Your task to perform on an android device: create a new album in the google photos Image 0: 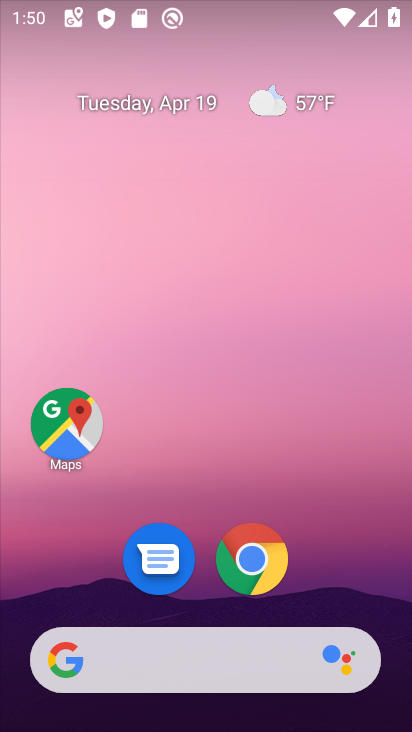
Step 0: drag from (209, 589) to (249, 85)
Your task to perform on an android device: create a new album in the google photos Image 1: 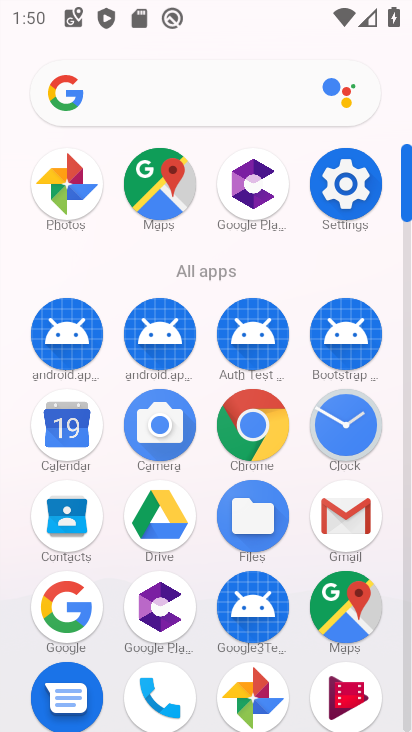
Step 1: click (250, 686)
Your task to perform on an android device: create a new album in the google photos Image 2: 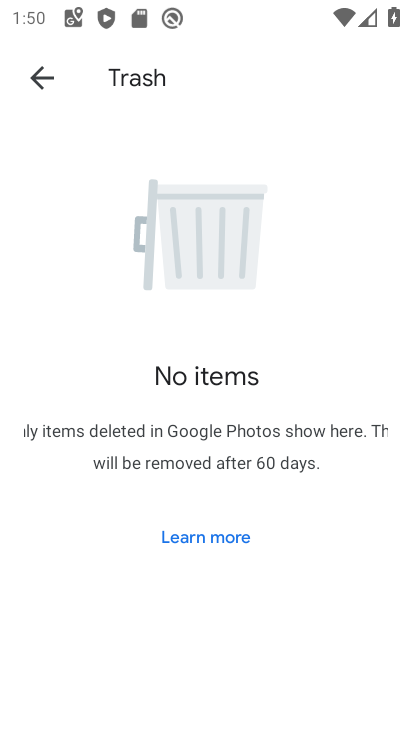
Step 2: click (46, 77)
Your task to perform on an android device: create a new album in the google photos Image 3: 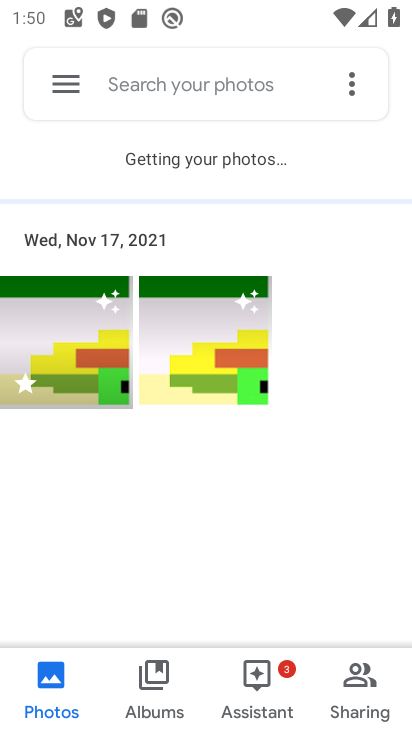
Step 3: click (150, 672)
Your task to perform on an android device: create a new album in the google photos Image 4: 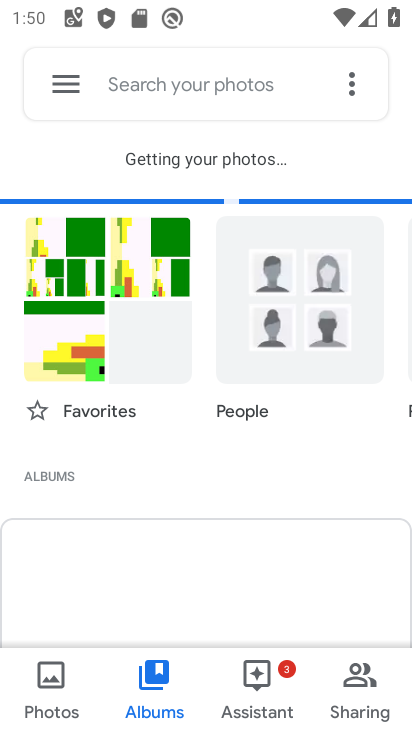
Step 4: click (347, 86)
Your task to perform on an android device: create a new album in the google photos Image 5: 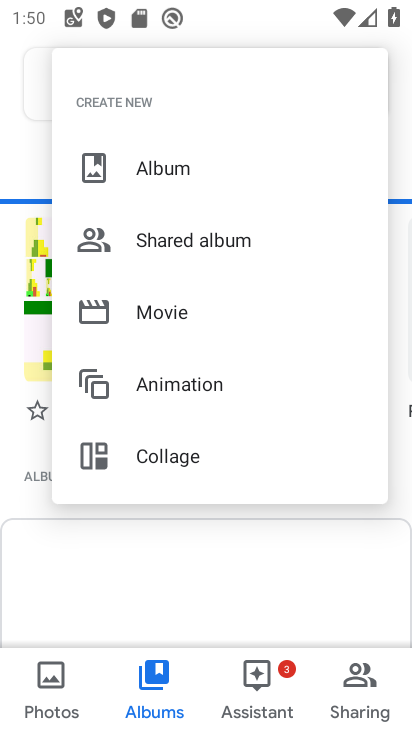
Step 5: click (151, 162)
Your task to perform on an android device: create a new album in the google photos Image 6: 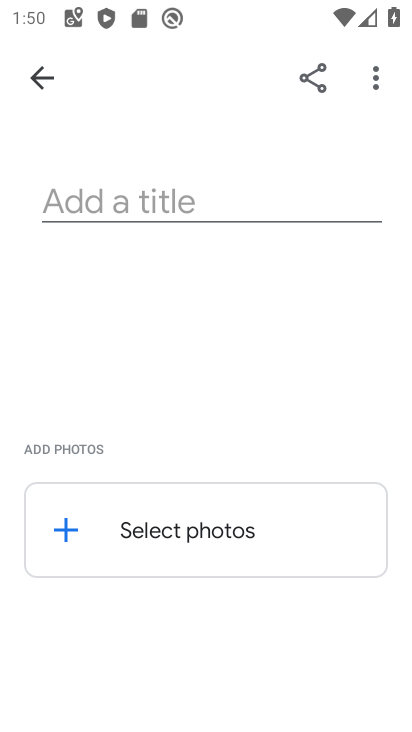
Step 6: click (73, 537)
Your task to perform on an android device: create a new album in the google photos Image 7: 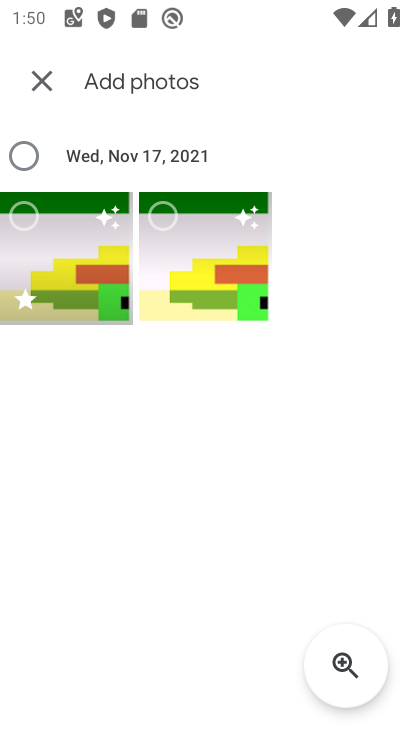
Step 7: click (28, 154)
Your task to perform on an android device: create a new album in the google photos Image 8: 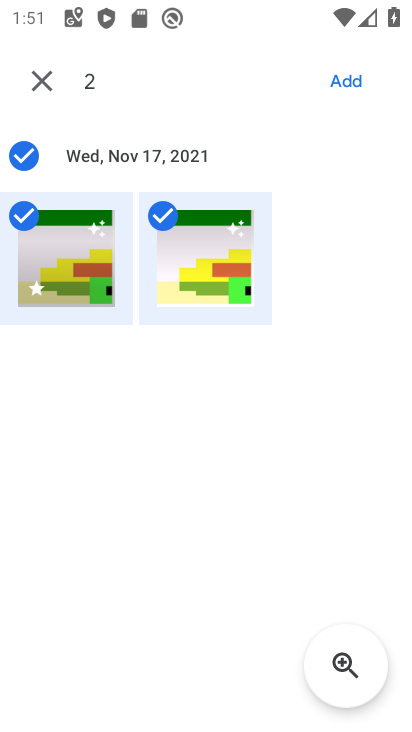
Step 8: click (338, 86)
Your task to perform on an android device: create a new album in the google photos Image 9: 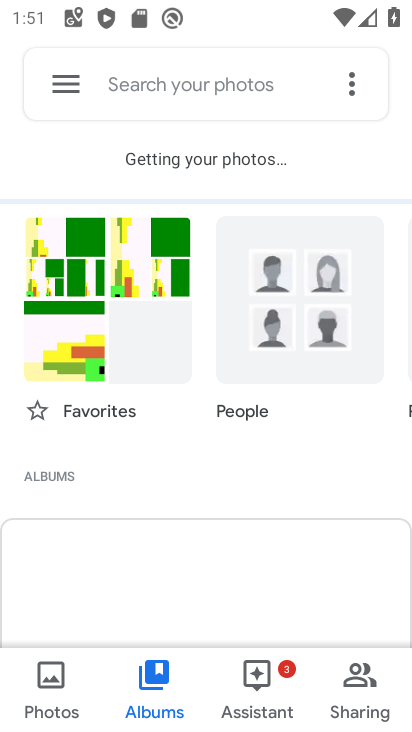
Step 9: click (354, 78)
Your task to perform on an android device: create a new album in the google photos Image 10: 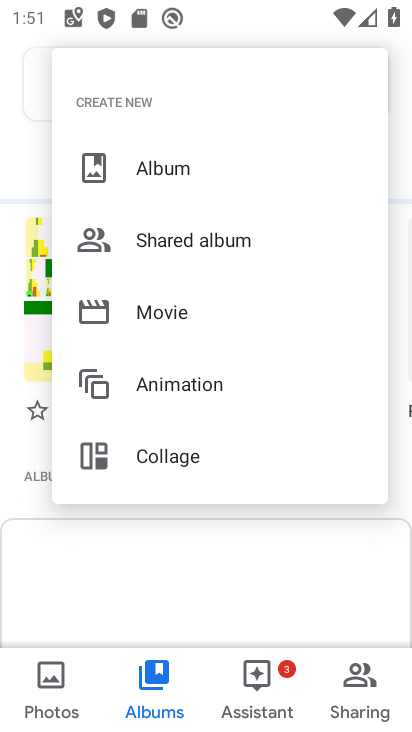
Step 10: click (162, 160)
Your task to perform on an android device: create a new album in the google photos Image 11: 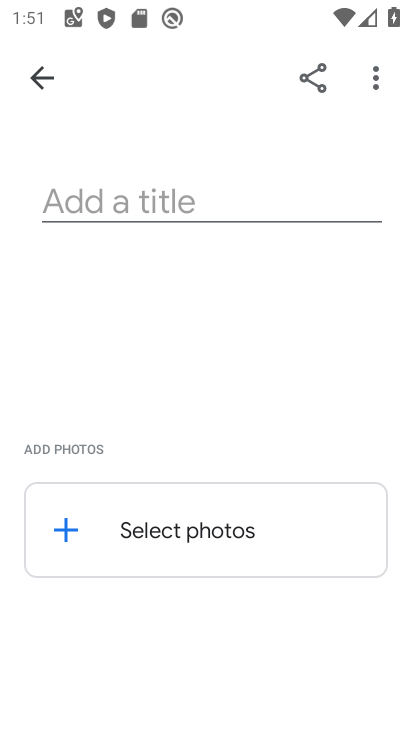
Step 11: click (80, 541)
Your task to perform on an android device: create a new album in the google photos Image 12: 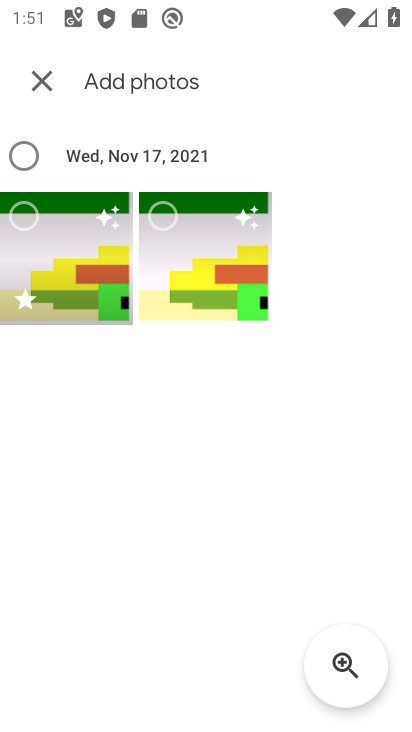
Step 12: click (18, 151)
Your task to perform on an android device: create a new album in the google photos Image 13: 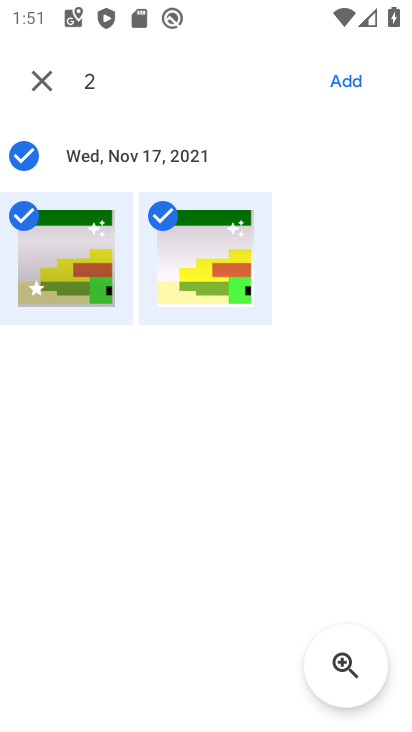
Step 13: click (342, 78)
Your task to perform on an android device: create a new album in the google photos Image 14: 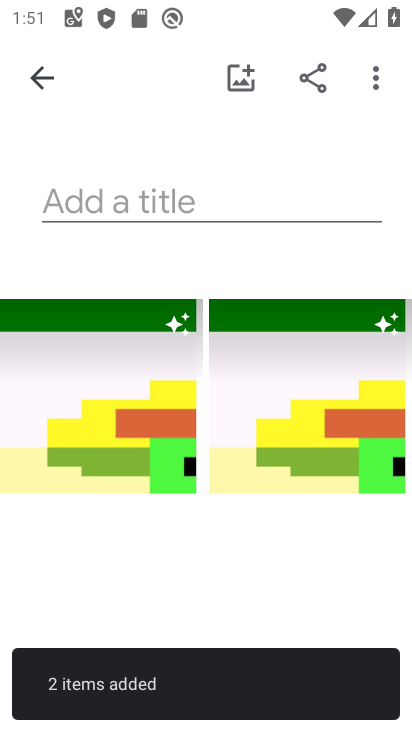
Step 14: click (108, 193)
Your task to perform on an android device: create a new album in the google photos Image 15: 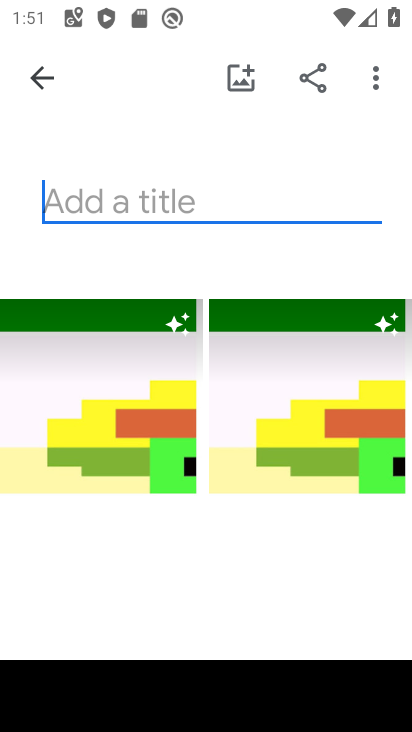
Step 15: type "vcgfs"
Your task to perform on an android device: create a new album in the google photos Image 16: 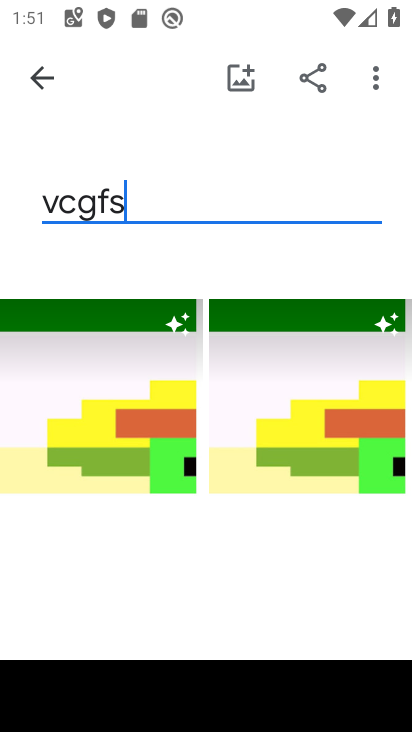
Step 16: click (236, 572)
Your task to perform on an android device: create a new album in the google photos Image 17: 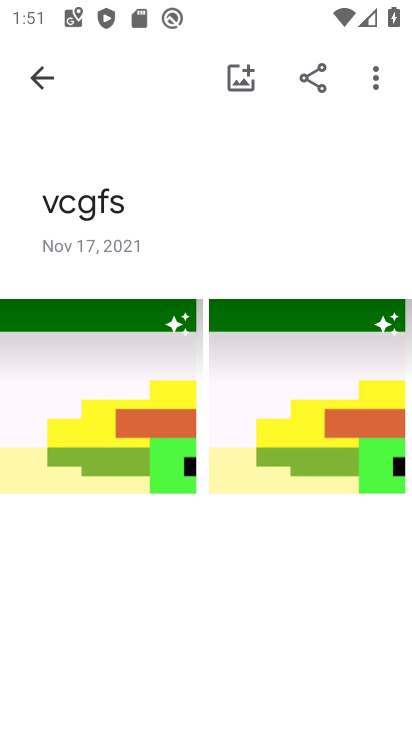
Step 17: task complete